Your task to perform on an android device: Open sound settings Image 0: 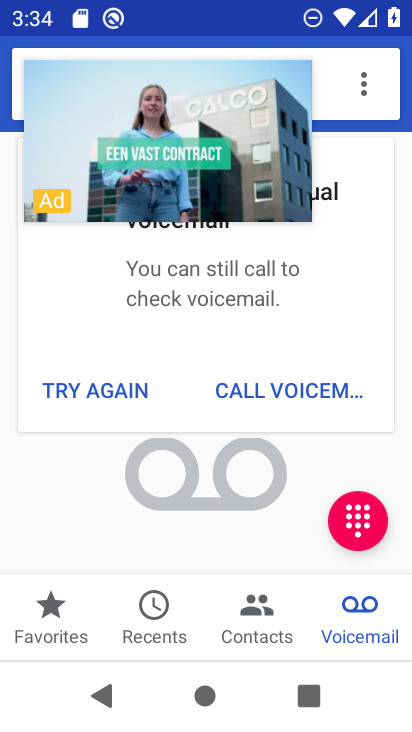
Step 0: press home button
Your task to perform on an android device: Open sound settings Image 1: 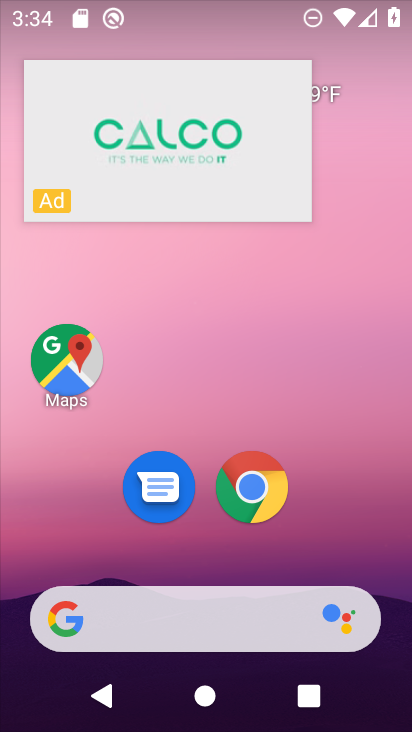
Step 1: drag from (49, 152) to (408, 259)
Your task to perform on an android device: Open sound settings Image 2: 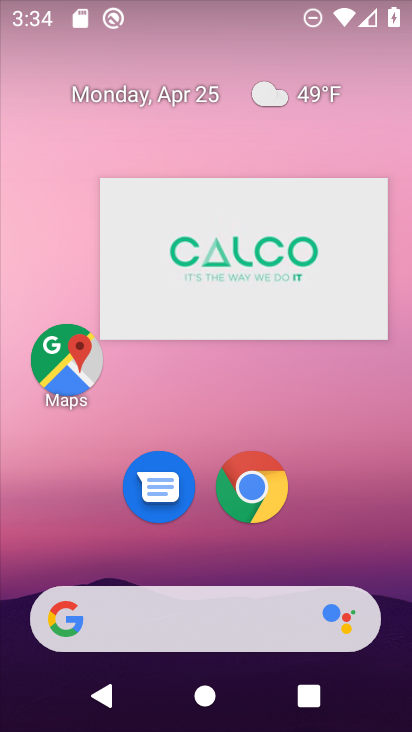
Step 2: drag from (234, 222) to (312, 722)
Your task to perform on an android device: Open sound settings Image 3: 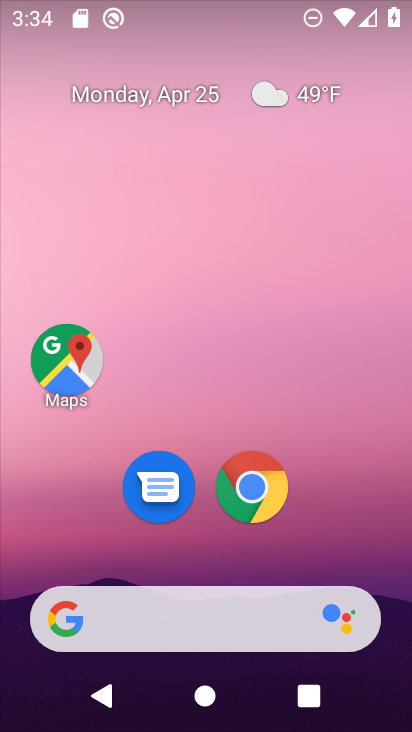
Step 3: drag from (367, 552) to (364, 49)
Your task to perform on an android device: Open sound settings Image 4: 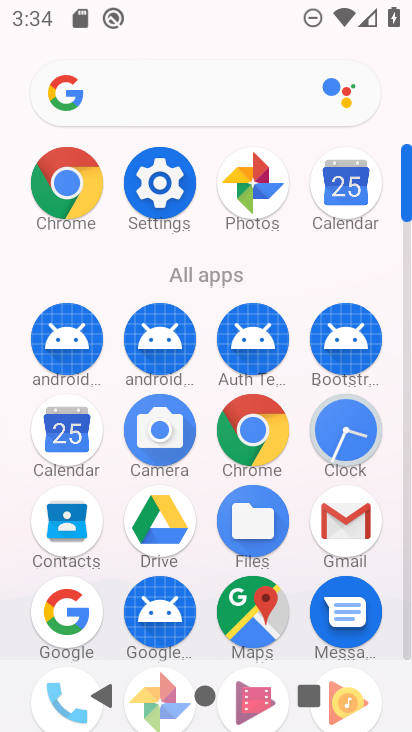
Step 4: click (151, 191)
Your task to perform on an android device: Open sound settings Image 5: 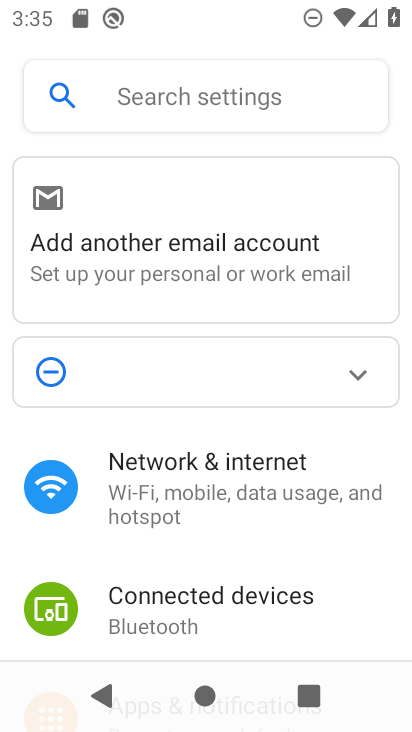
Step 5: drag from (354, 573) to (378, 155)
Your task to perform on an android device: Open sound settings Image 6: 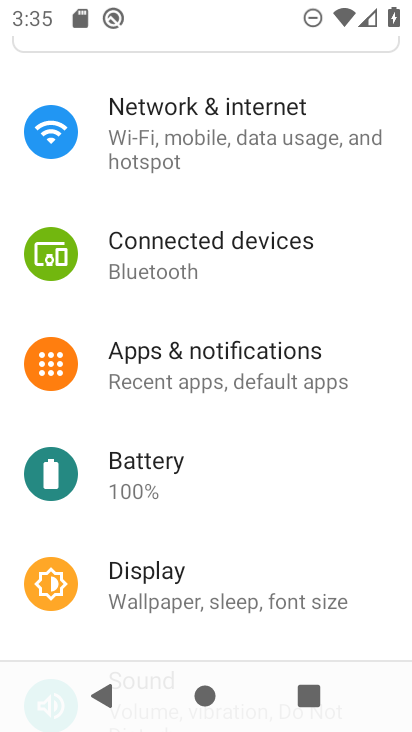
Step 6: drag from (329, 481) to (338, 218)
Your task to perform on an android device: Open sound settings Image 7: 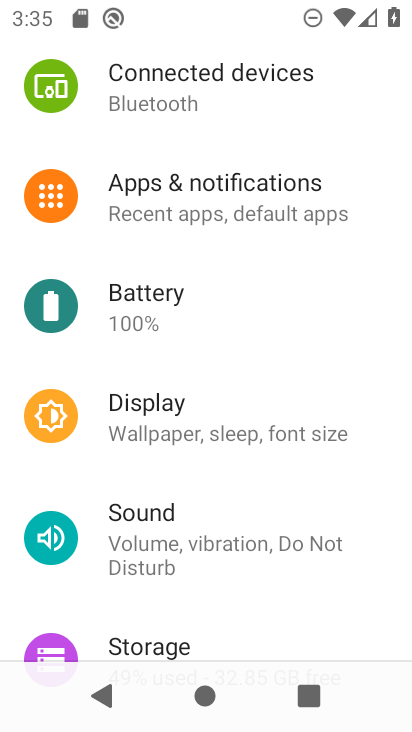
Step 7: click (124, 538)
Your task to perform on an android device: Open sound settings Image 8: 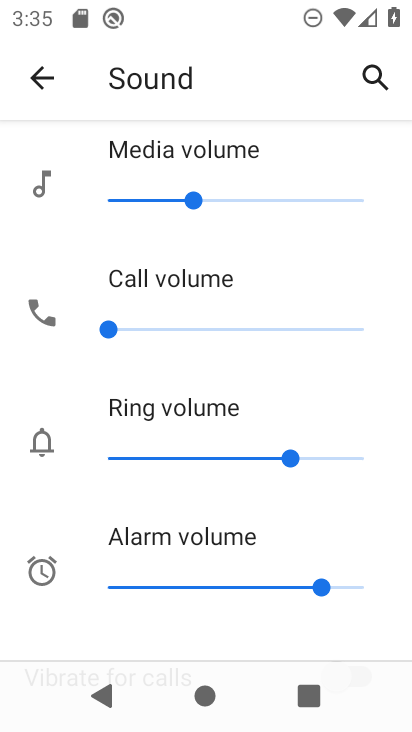
Step 8: task complete